Your task to perform on an android device: turn off notifications in google photos Image 0: 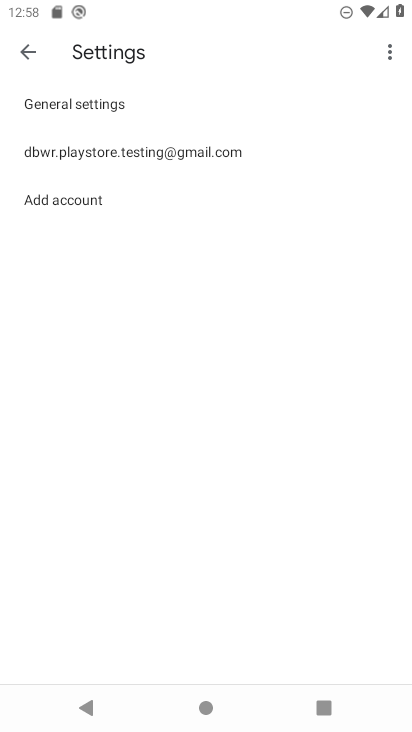
Step 0: press home button
Your task to perform on an android device: turn off notifications in google photos Image 1: 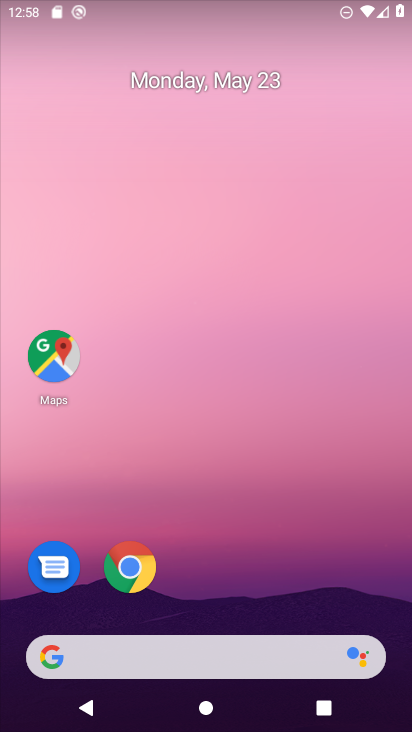
Step 1: drag from (198, 606) to (254, 14)
Your task to perform on an android device: turn off notifications in google photos Image 2: 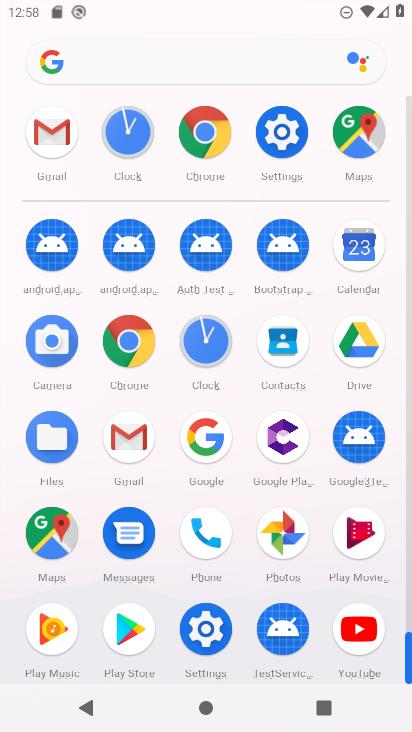
Step 2: click (289, 148)
Your task to perform on an android device: turn off notifications in google photos Image 3: 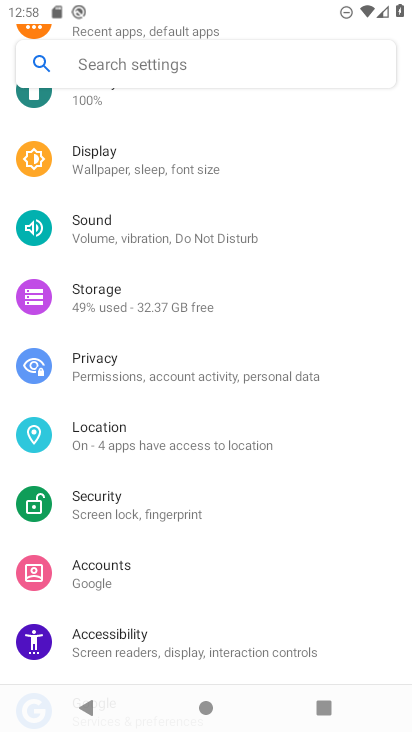
Step 3: click (112, 329)
Your task to perform on an android device: turn off notifications in google photos Image 4: 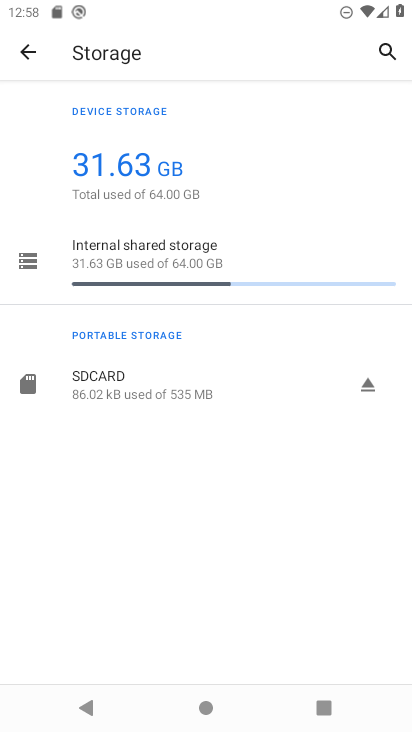
Step 4: press back button
Your task to perform on an android device: turn off notifications in google photos Image 5: 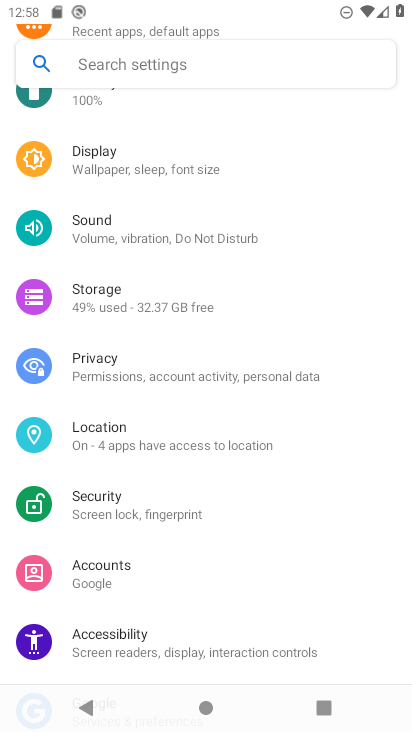
Step 5: drag from (192, 141) to (106, 571)
Your task to perform on an android device: turn off notifications in google photos Image 6: 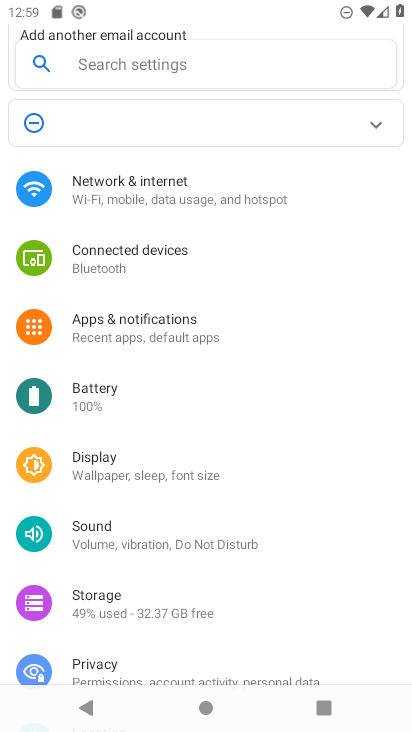
Step 6: click (141, 332)
Your task to perform on an android device: turn off notifications in google photos Image 7: 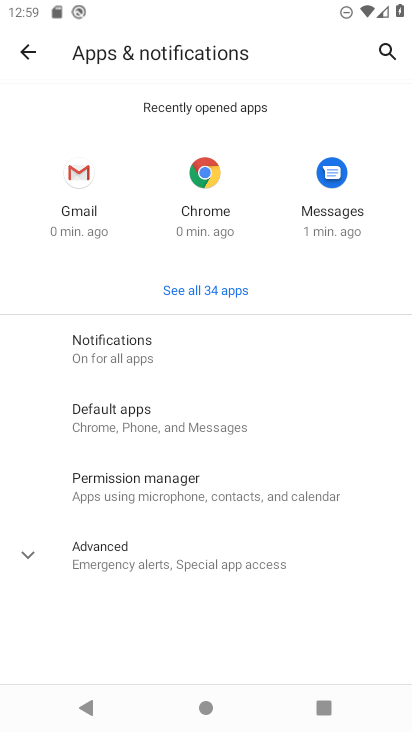
Step 7: click (141, 332)
Your task to perform on an android device: turn off notifications in google photos Image 8: 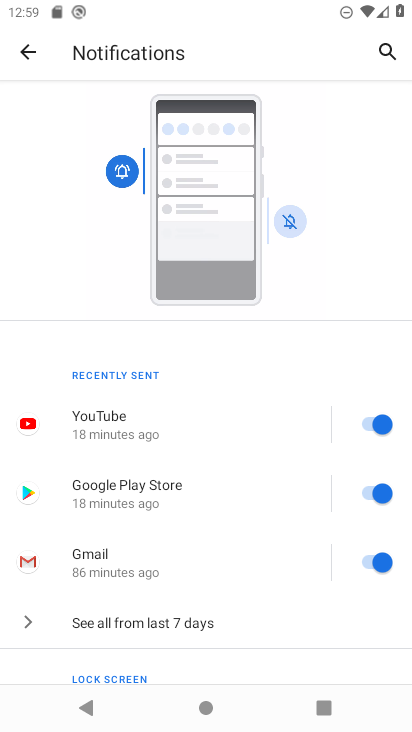
Step 8: click (31, 47)
Your task to perform on an android device: turn off notifications in google photos Image 9: 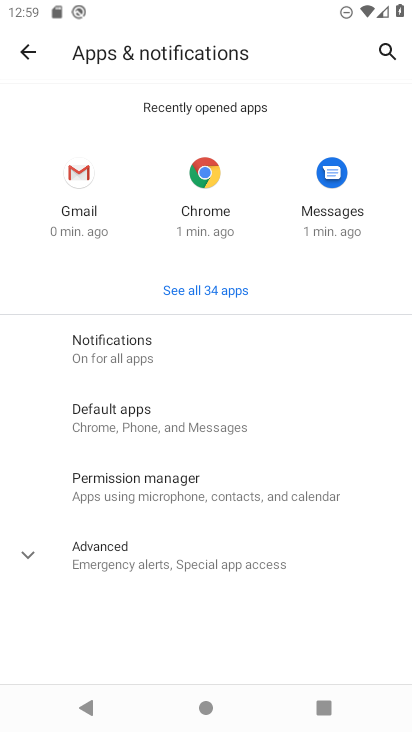
Step 9: click (178, 291)
Your task to perform on an android device: turn off notifications in google photos Image 10: 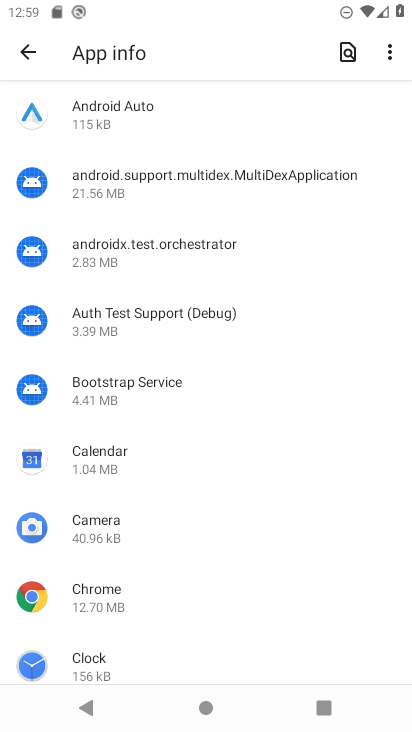
Step 10: drag from (51, 638) to (262, 97)
Your task to perform on an android device: turn off notifications in google photos Image 11: 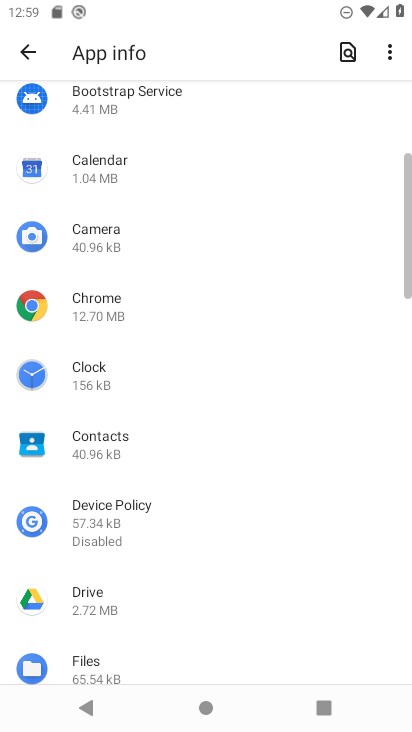
Step 11: drag from (45, 675) to (174, 225)
Your task to perform on an android device: turn off notifications in google photos Image 12: 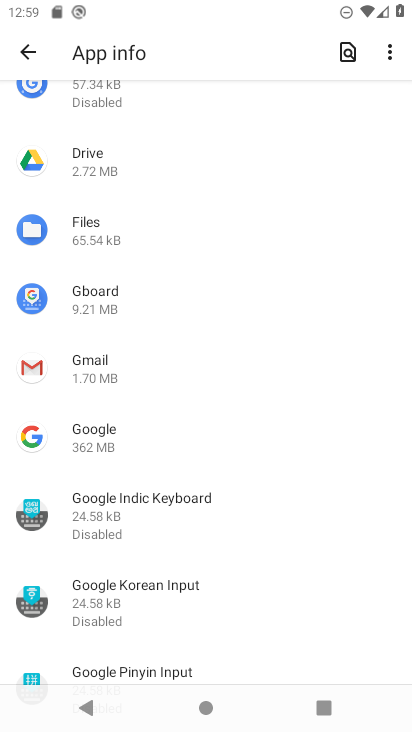
Step 12: drag from (66, 660) to (267, 83)
Your task to perform on an android device: turn off notifications in google photos Image 13: 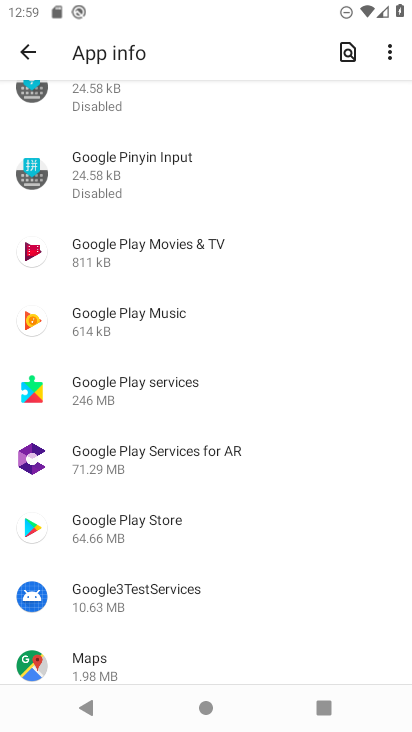
Step 13: drag from (27, 638) to (162, 139)
Your task to perform on an android device: turn off notifications in google photos Image 14: 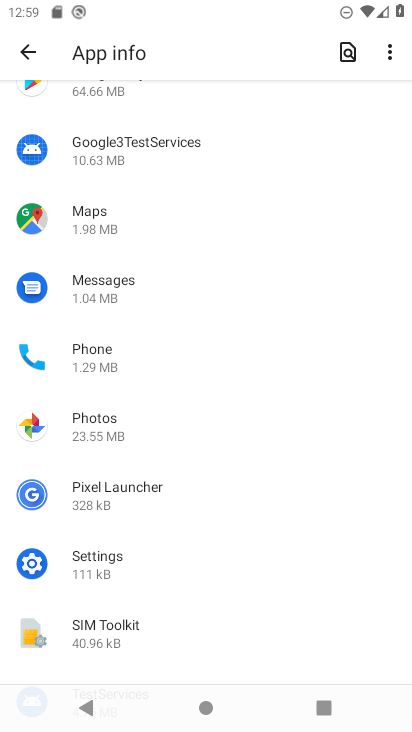
Step 14: drag from (63, 623) to (79, 401)
Your task to perform on an android device: turn off notifications in google photos Image 15: 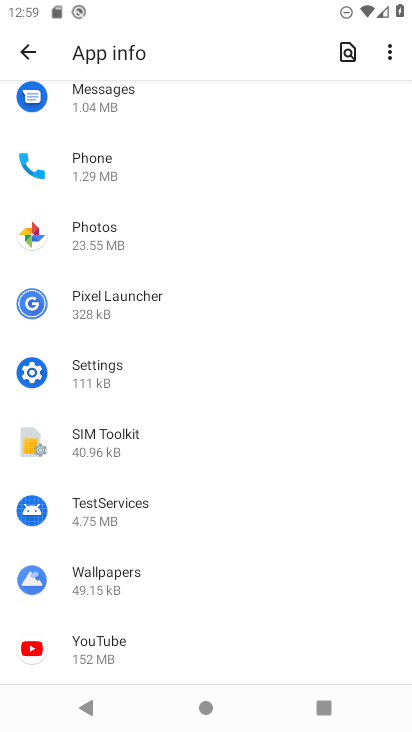
Step 15: drag from (60, 619) to (138, 76)
Your task to perform on an android device: turn off notifications in google photos Image 16: 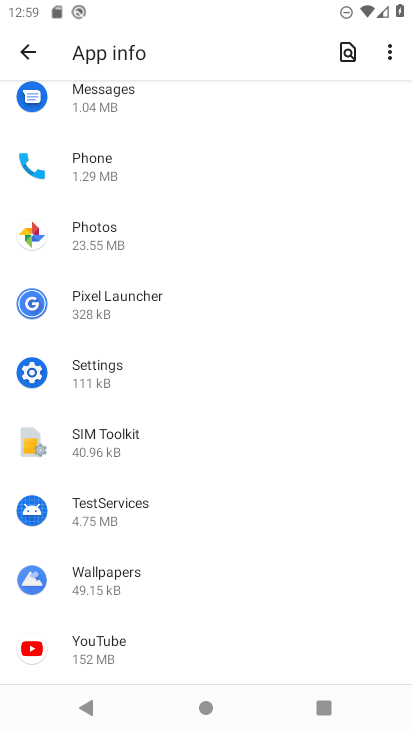
Step 16: click (66, 249)
Your task to perform on an android device: turn off notifications in google photos Image 17: 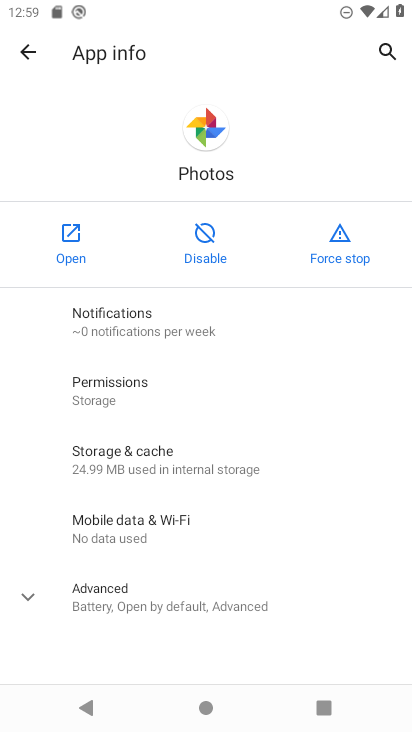
Step 17: click (122, 345)
Your task to perform on an android device: turn off notifications in google photos Image 18: 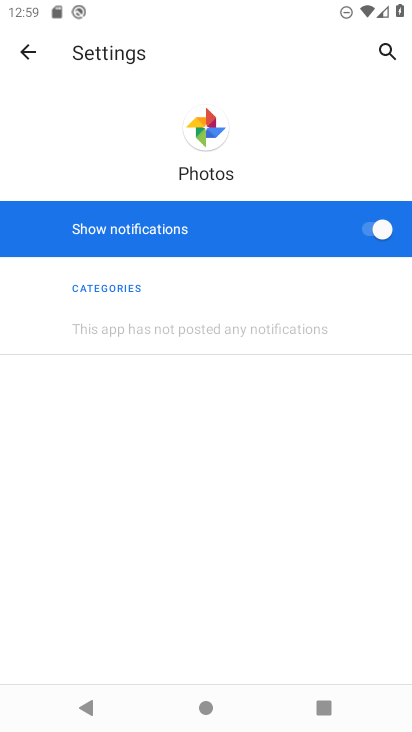
Step 18: click (356, 236)
Your task to perform on an android device: turn off notifications in google photos Image 19: 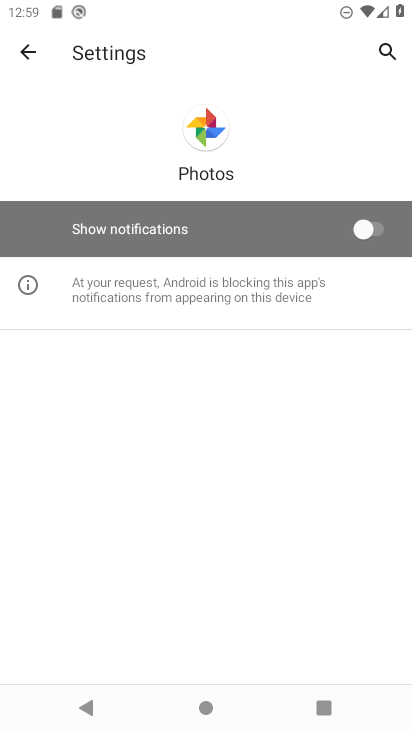
Step 19: task complete